Your task to perform on an android device: Open a new window in Chrome Image 0: 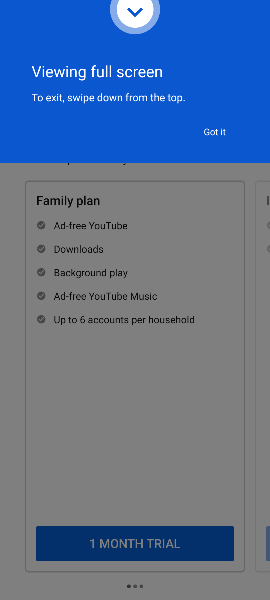
Step 0: press home button
Your task to perform on an android device: Open a new window in Chrome Image 1: 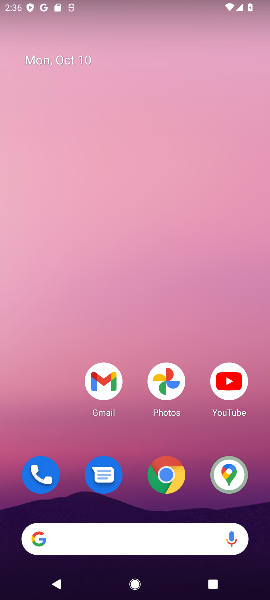
Step 1: click (180, 480)
Your task to perform on an android device: Open a new window in Chrome Image 2: 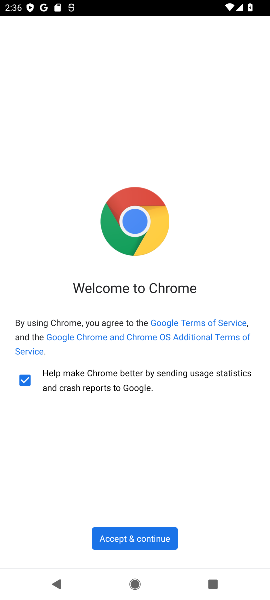
Step 2: click (143, 539)
Your task to perform on an android device: Open a new window in Chrome Image 3: 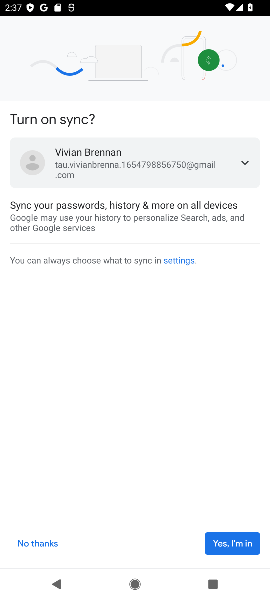
Step 3: click (250, 546)
Your task to perform on an android device: Open a new window in Chrome Image 4: 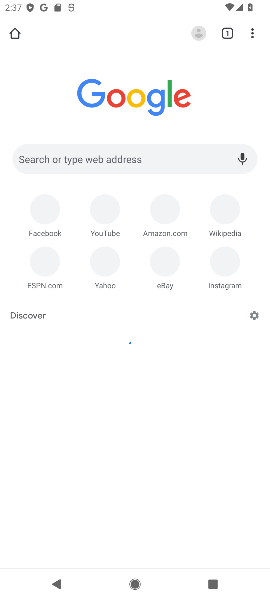
Step 4: click (250, 546)
Your task to perform on an android device: Open a new window in Chrome Image 5: 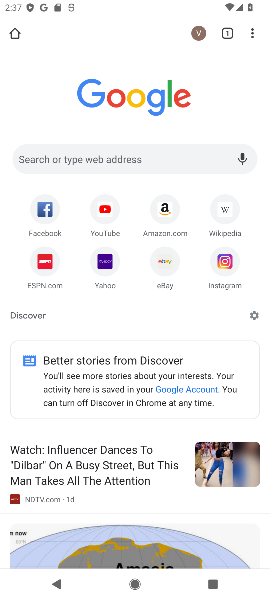
Step 5: click (225, 40)
Your task to perform on an android device: Open a new window in Chrome Image 6: 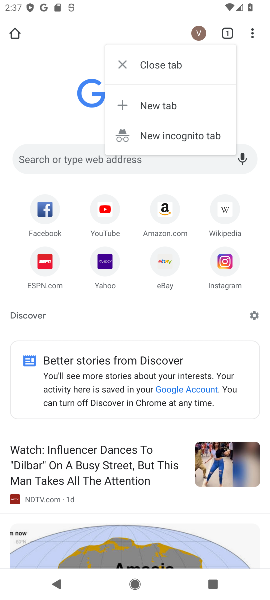
Step 6: click (152, 103)
Your task to perform on an android device: Open a new window in Chrome Image 7: 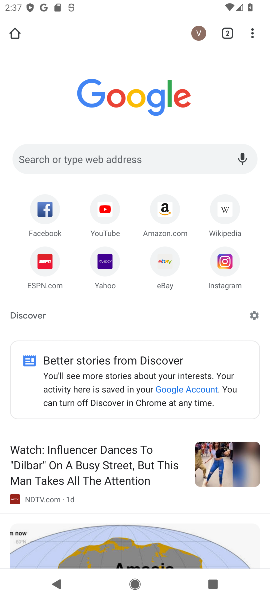
Step 7: task complete